Your task to perform on an android device: make emails show in primary in the gmail app Image 0: 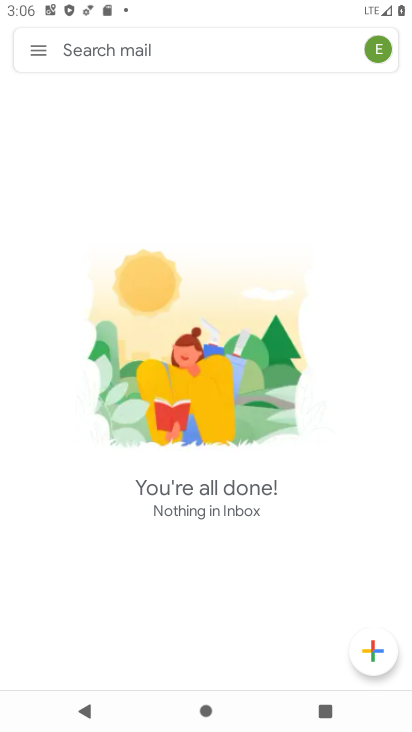
Step 0: click (35, 41)
Your task to perform on an android device: make emails show in primary in the gmail app Image 1: 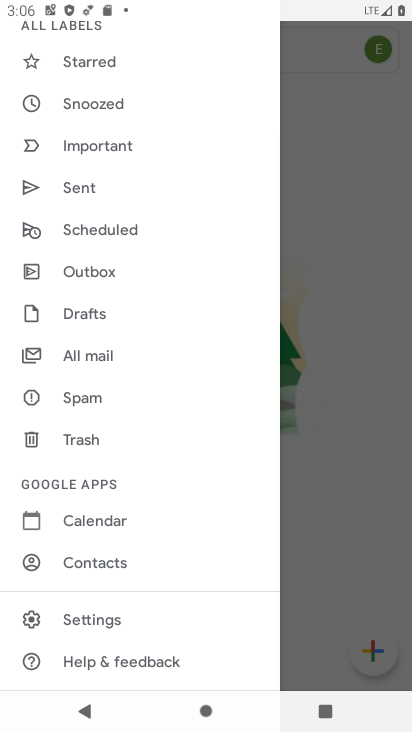
Step 1: click (99, 626)
Your task to perform on an android device: make emails show in primary in the gmail app Image 2: 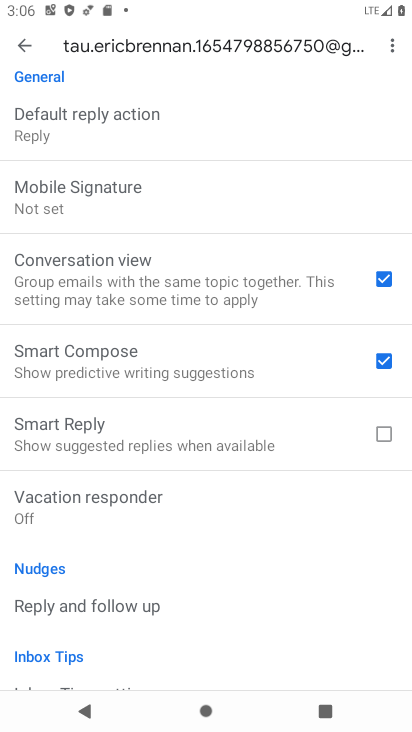
Step 2: task complete